Your task to perform on an android device: open app "Roku - Official Remote Control" (install if not already installed) and enter user name: "autumnal@gmail.com" and password: "stuffing" Image 0: 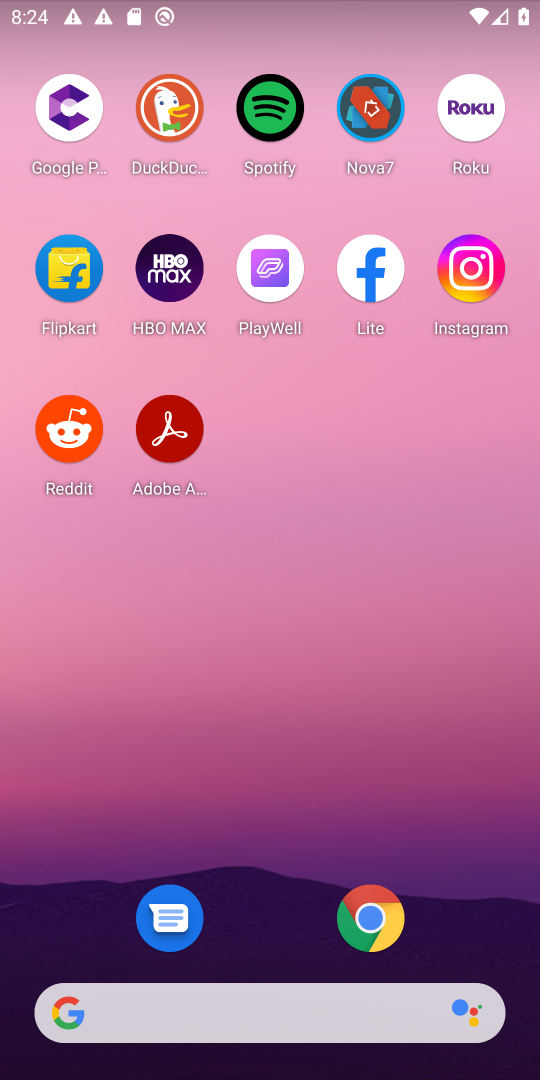
Step 0: press home button
Your task to perform on an android device: open app "Roku - Official Remote Control" (install if not already installed) and enter user name: "autumnal@gmail.com" and password: "stuffing" Image 1: 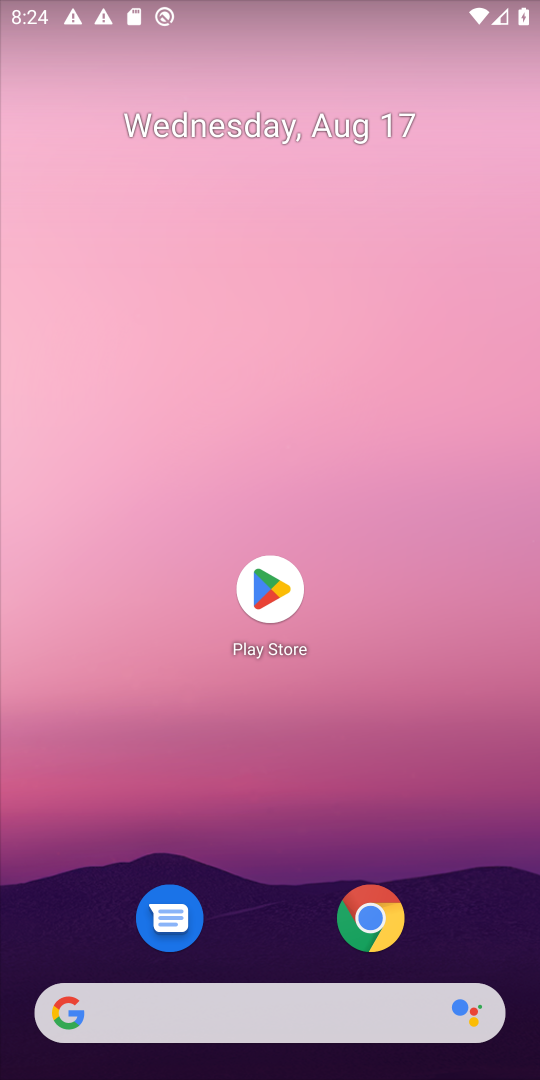
Step 1: click (269, 584)
Your task to perform on an android device: open app "Roku - Official Remote Control" (install if not already installed) and enter user name: "autumnal@gmail.com" and password: "stuffing" Image 2: 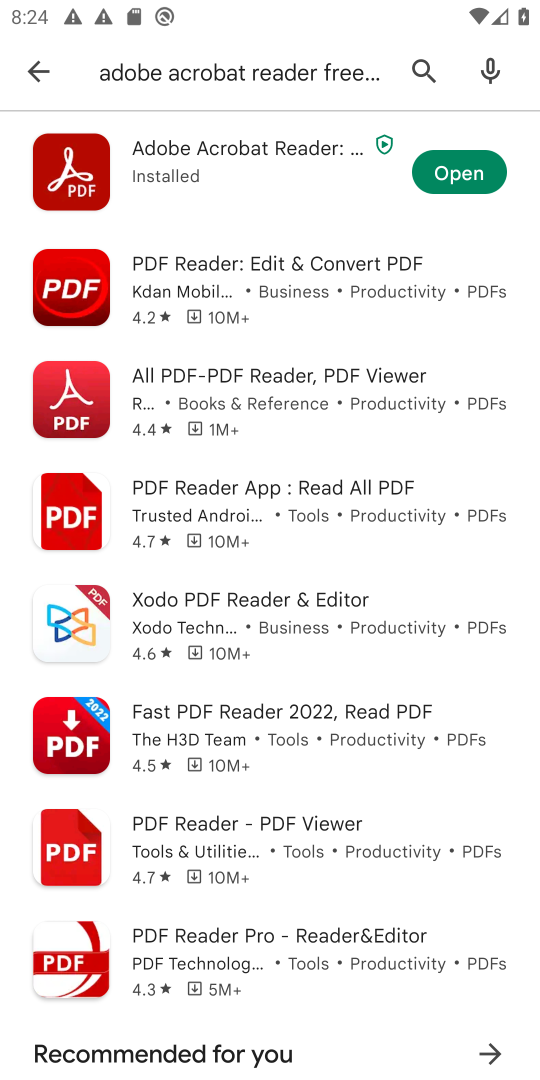
Step 2: click (415, 61)
Your task to perform on an android device: open app "Roku - Official Remote Control" (install if not already installed) and enter user name: "autumnal@gmail.com" and password: "stuffing" Image 3: 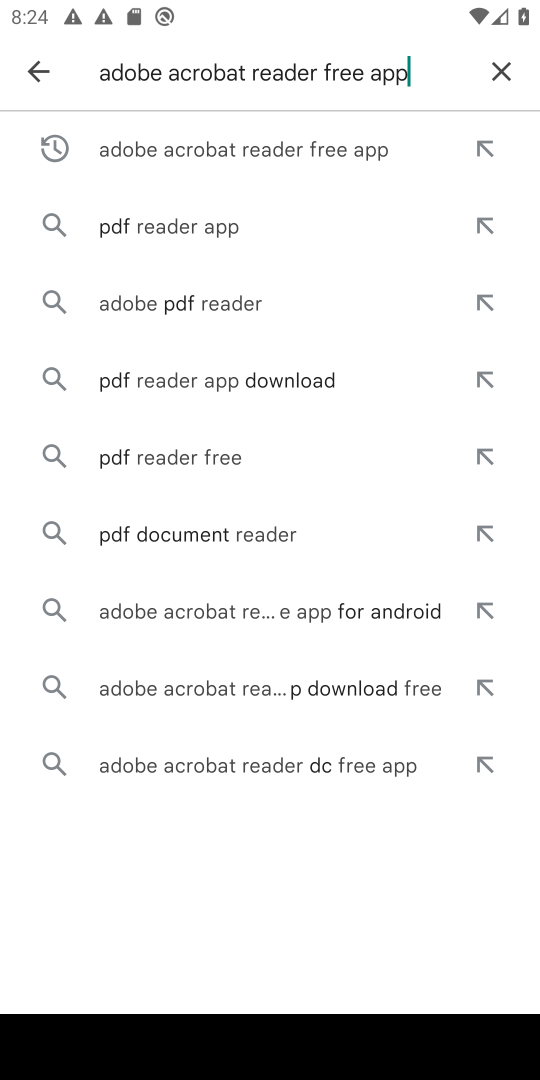
Step 3: click (499, 73)
Your task to perform on an android device: open app "Roku - Official Remote Control" (install if not already installed) and enter user name: "autumnal@gmail.com" and password: "stuffing" Image 4: 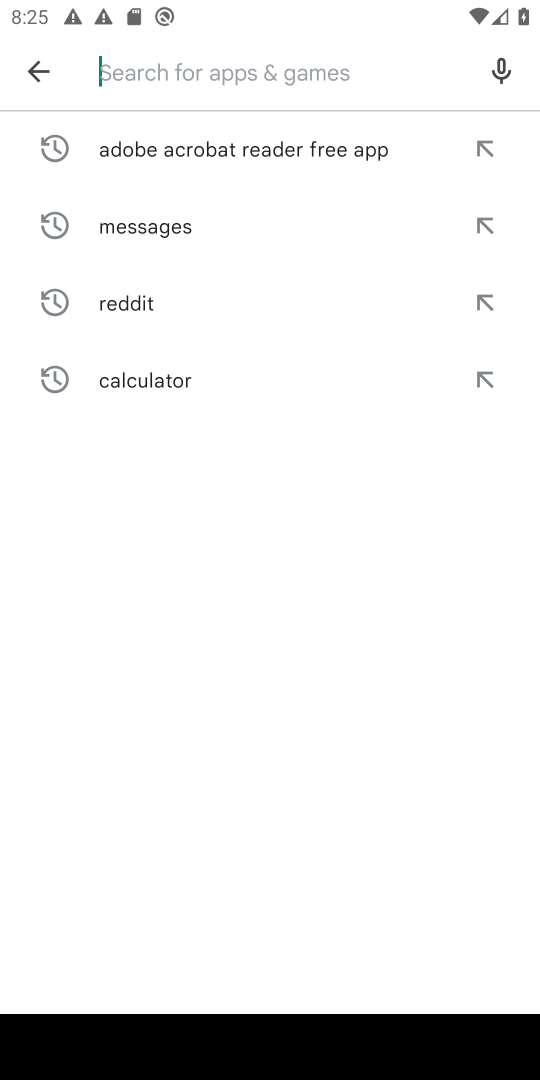
Step 4: type "Roku - Official Remote Control"
Your task to perform on an android device: open app "Roku - Official Remote Control" (install if not already installed) and enter user name: "autumnal@gmail.com" and password: "stuffing" Image 5: 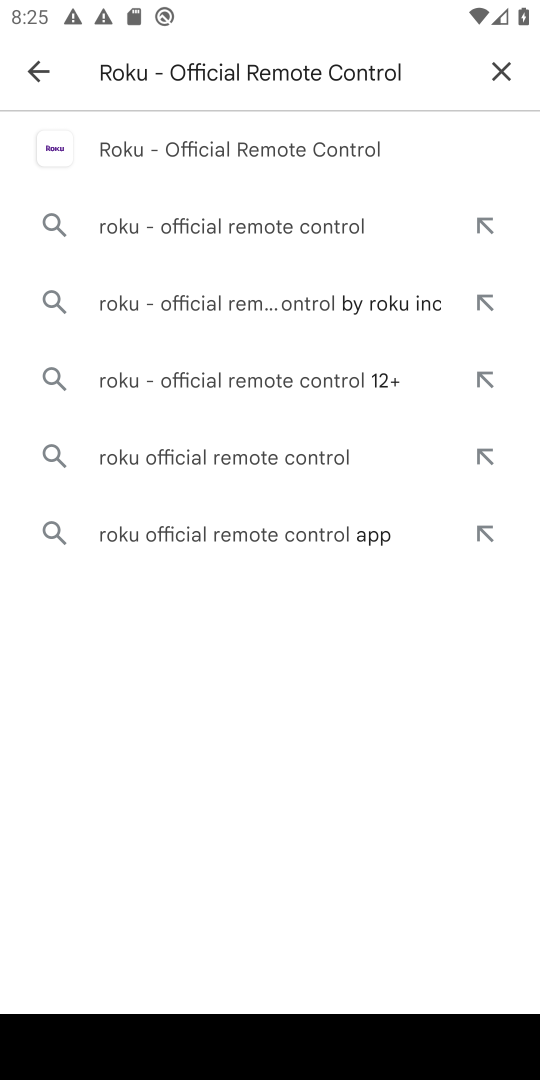
Step 5: click (269, 148)
Your task to perform on an android device: open app "Roku - Official Remote Control" (install if not already installed) and enter user name: "autumnal@gmail.com" and password: "stuffing" Image 6: 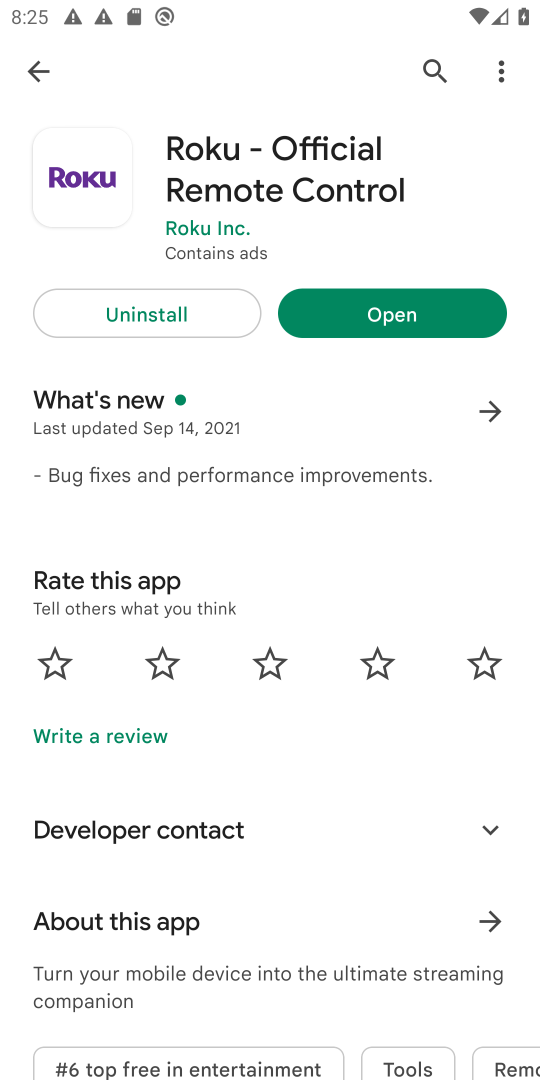
Step 6: click (376, 302)
Your task to perform on an android device: open app "Roku - Official Remote Control" (install if not already installed) and enter user name: "autumnal@gmail.com" and password: "stuffing" Image 7: 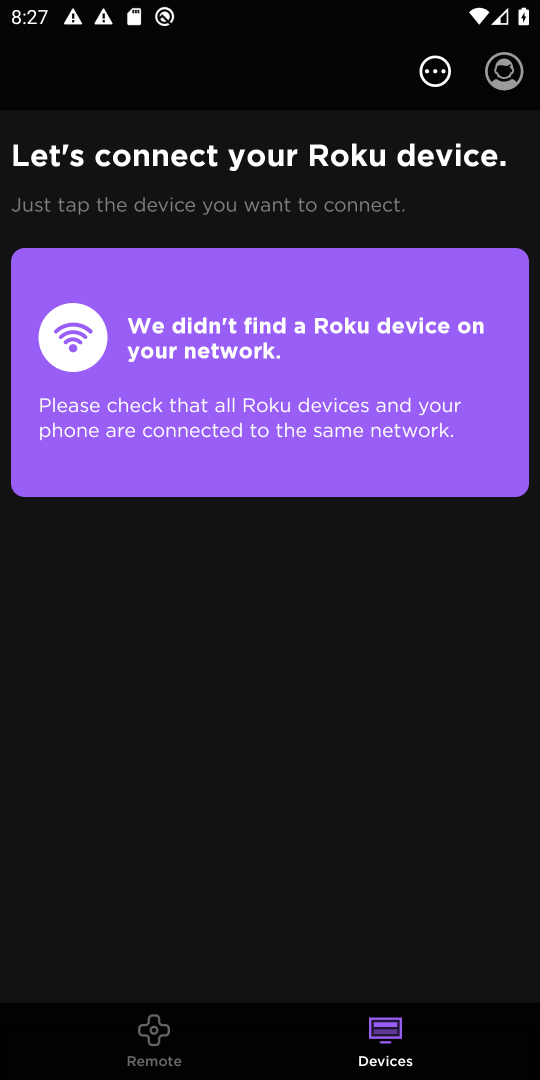
Step 7: task complete